Your task to perform on an android device: What's the weather going to be this weekend? Image 0: 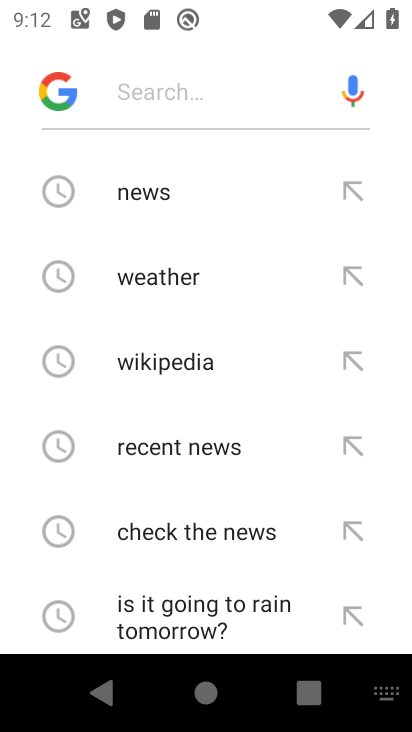
Step 0: press home button
Your task to perform on an android device: What's the weather going to be this weekend? Image 1: 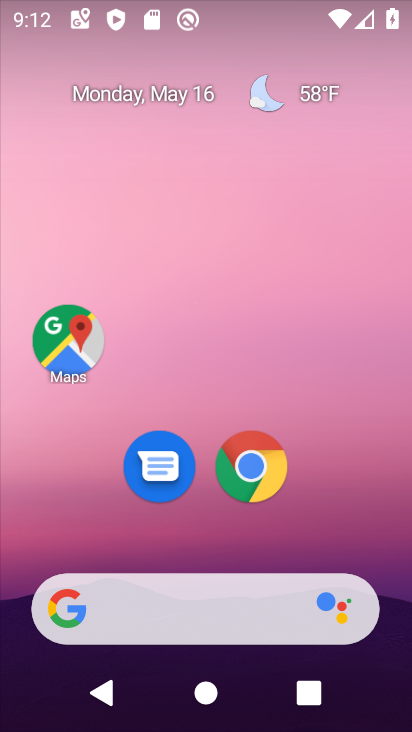
Step 1: click (263, 476)
Your task to perform on an android device: What's the weather going to be this weekend? Image 2: 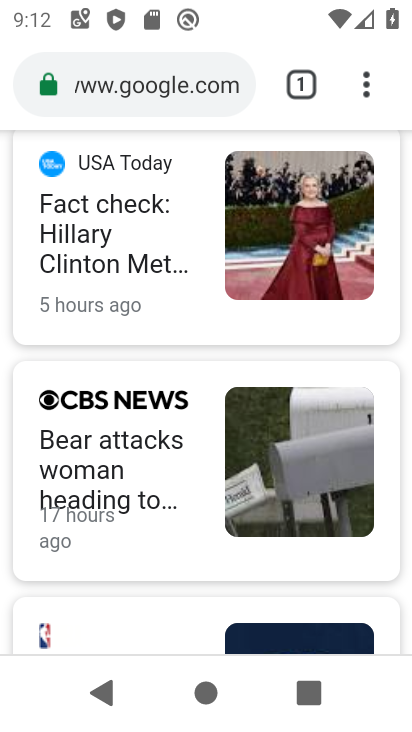
Step 2: click (205, 90)
Your task to perform on an android device: What's the weather going to be this weekend? Image 3: 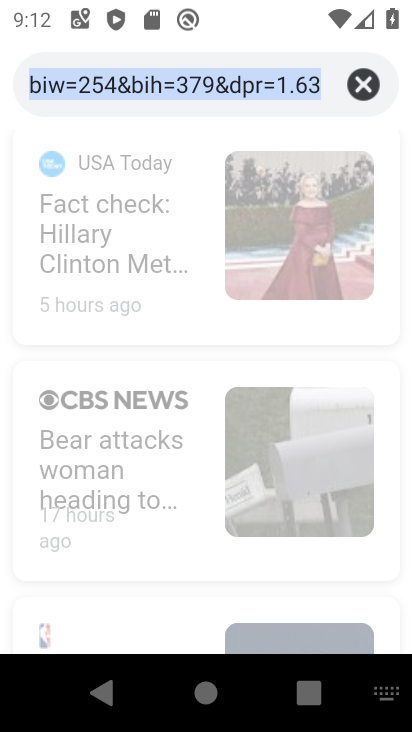
Step 3: click (356, 74)
Your task to perform on an android device: What's the weather going to be this weekend? Image 4: 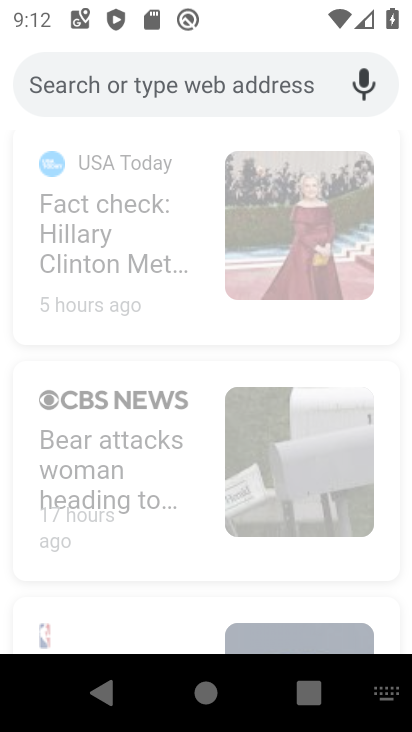
Step 4: type "What's the weather going to be this weekend?"
Your task to perform on an android device: What's the weather going to be this weekend? Image 5: 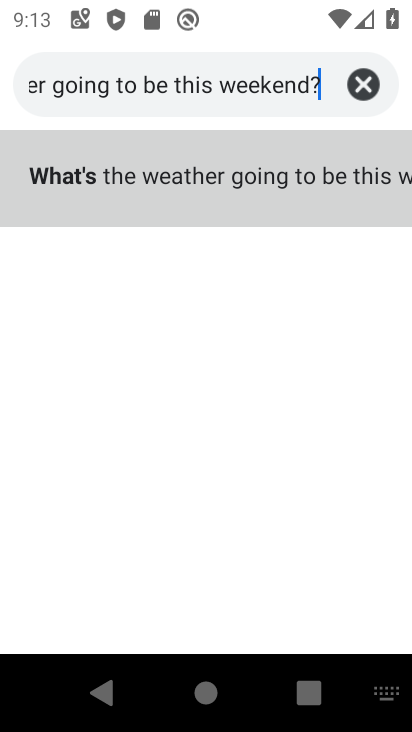
Step 5: click (183, 164)
Your task to perform on an android device: What's the weather going to be this weekend? Image 6: 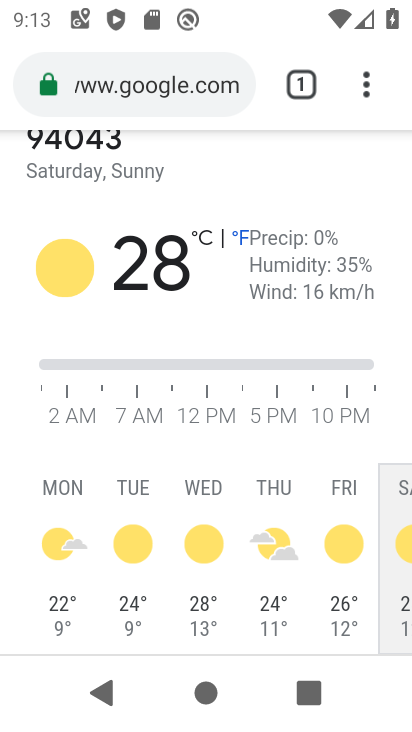
Step 6: task complete